Your task to perform on an android device: Open privacy settings Image 0: 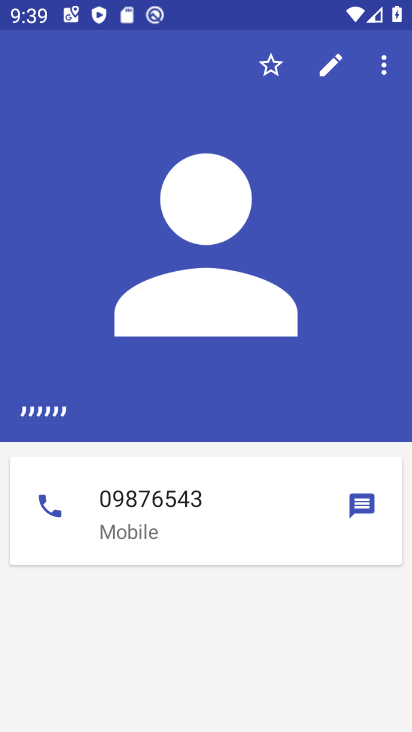
Step 0: press home button
Your task to perform on an android device: Open privacy settings Image 1: 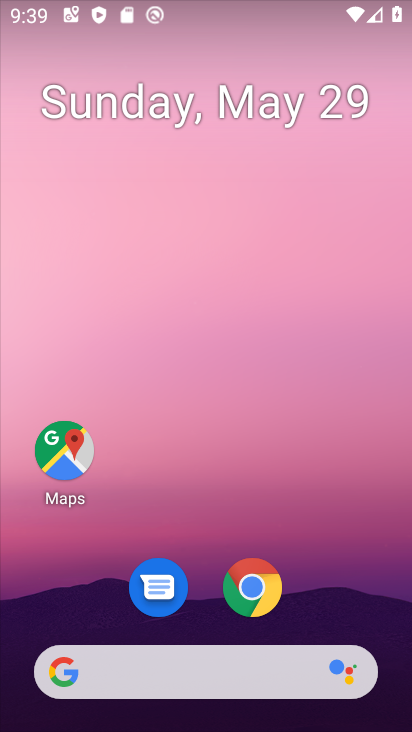
Step 1: drag from (238, 523) to (224, 0)
Your task to perform on an android device: Open privacy settings Image 2: 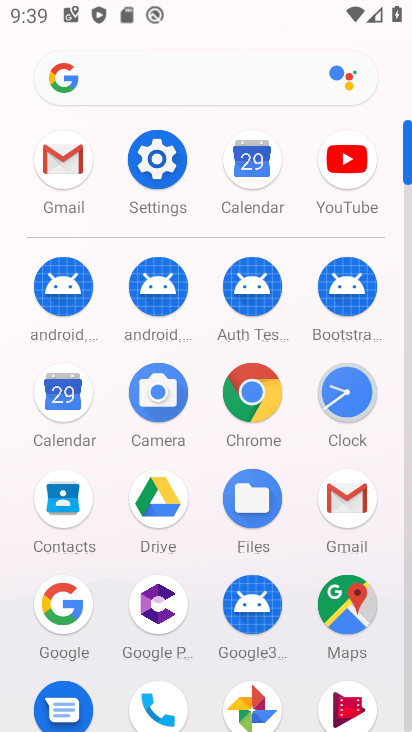
Step 2: click (162, 165)
Your task to perform on an android device: Open privacy settings Image 3: 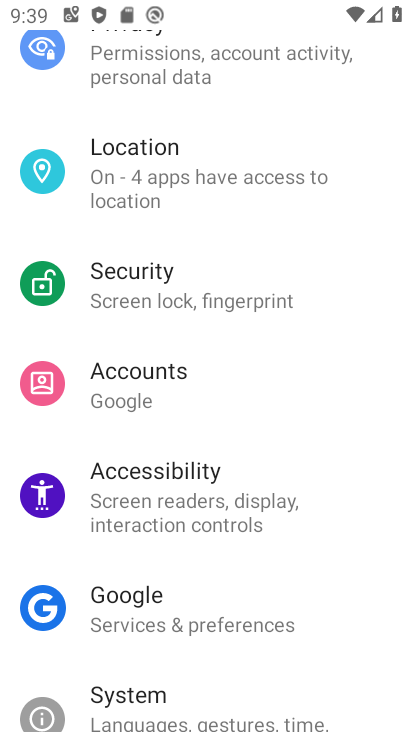
Step 3: drag from (191, 645) to (285, 6)
Your task to perform on an android device: Open privacy settings Image 4: 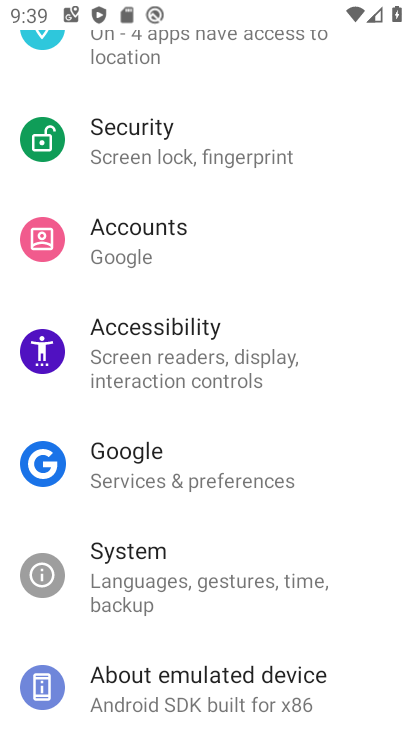
Step 4: drag from (246, 105) to (198, 697)
Your task to perform on an android device: Open privacy settings Image 5: 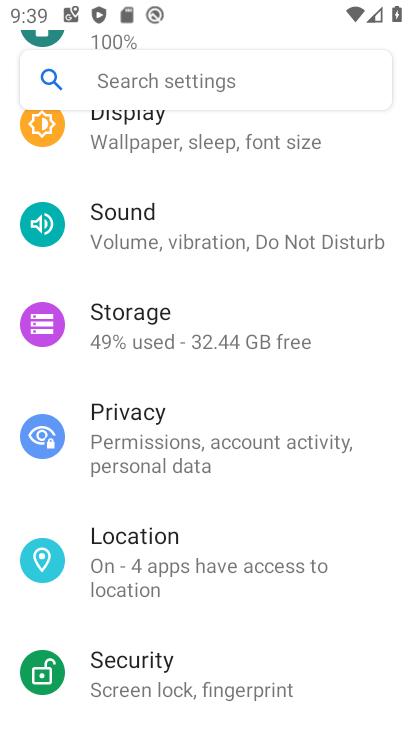
Step 5: click (148, 437)
Your task to perform on an android device: Open privacy settings Image 6: 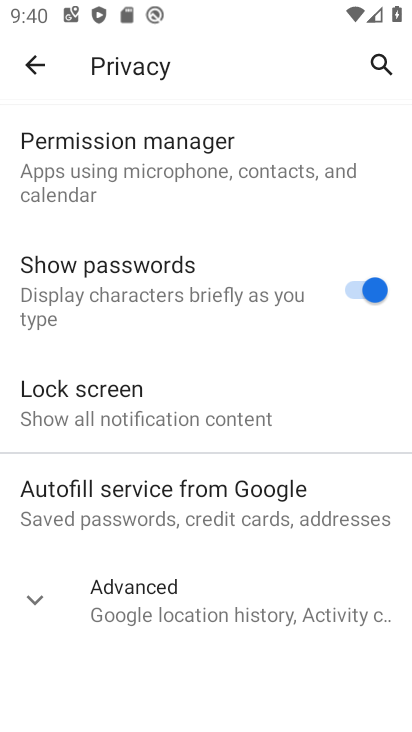
Step 6: task complete